Your task to perform on an android device: toggle wifi Image 0: 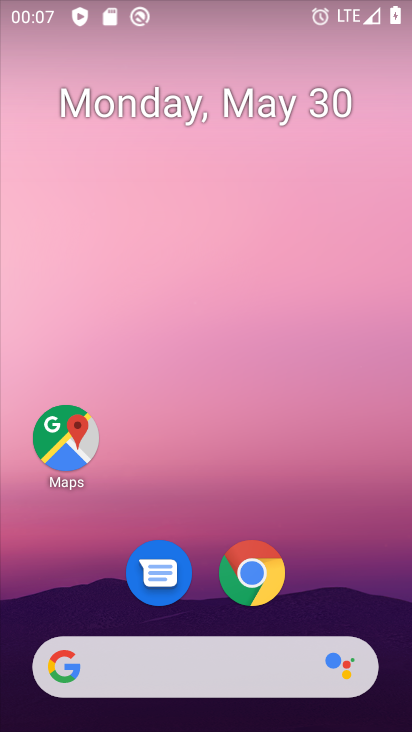
Step 0: drag from (342, 580) to (112, 7)
Your task to perform on an android device: toggle wifi Image 1: 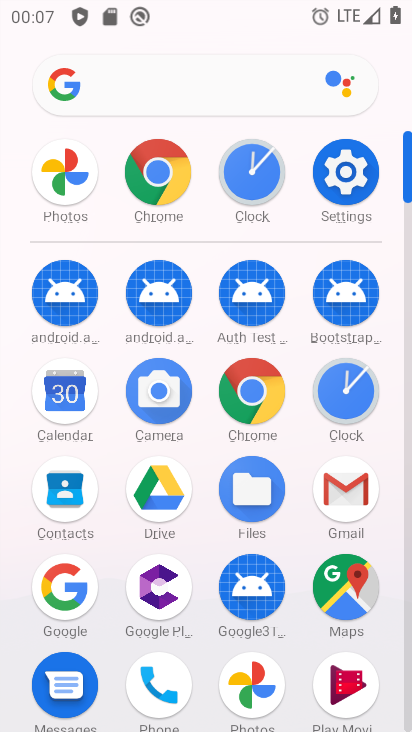
Step 1: click (350, 176)
Your task to perform on an android device: toggle wifi Image 2: 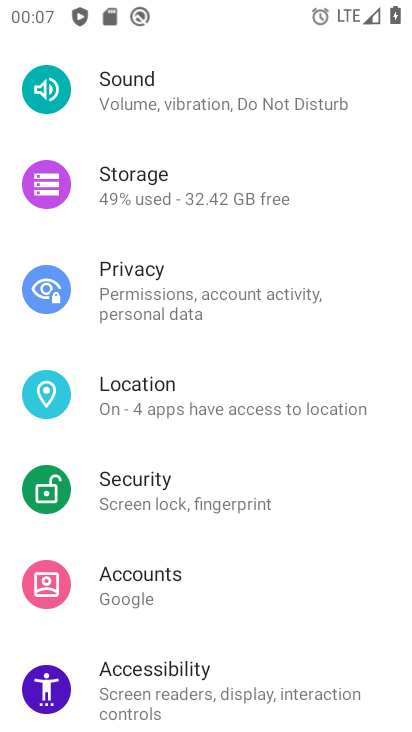
Step 2: drag from (219, 159) to (194, 668)
Your task to perform on an android device: toggle wifi Image 3: 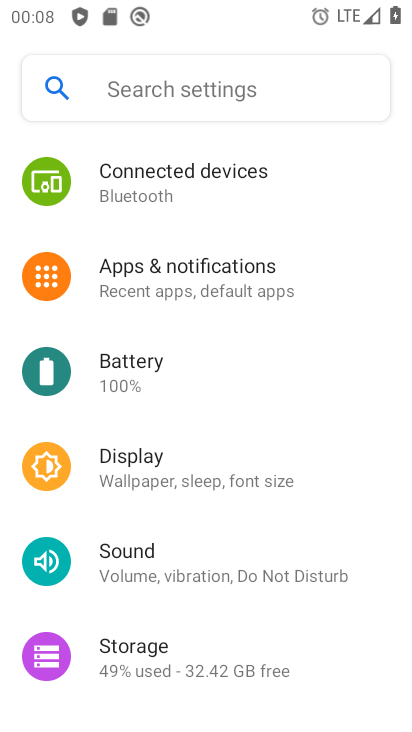
Step 3: drag from (217, 224) to (218, 628)
Your task to perform on an android device: toggle wifi Image 4: 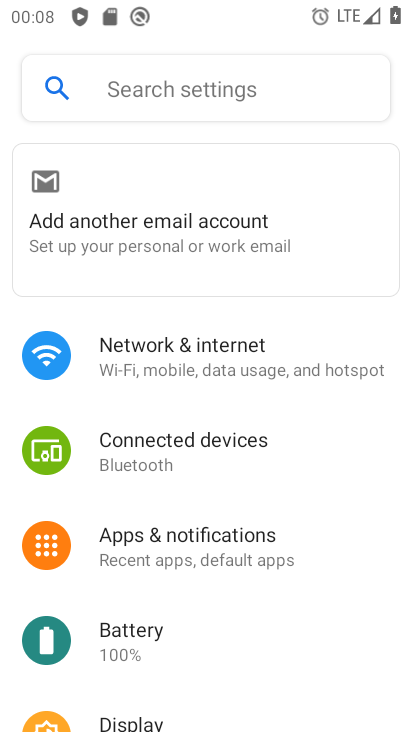
Step 4: click (211, 371)
Your task to perform on an android device: toggle wifi Image 5: 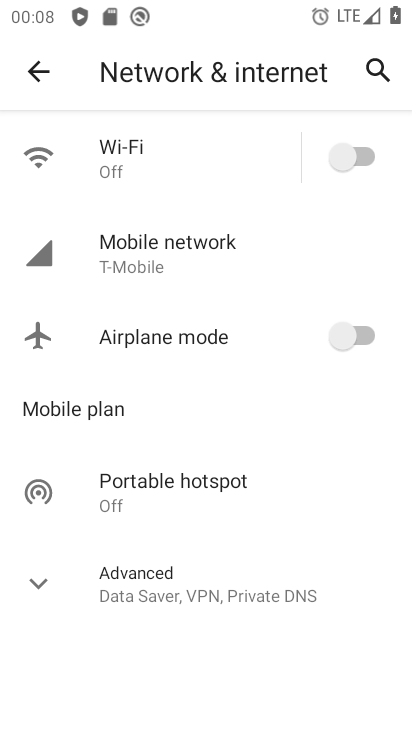
Step 5: click (346, 165)
Your task to perform on an android device: toggle wifi Image 6: 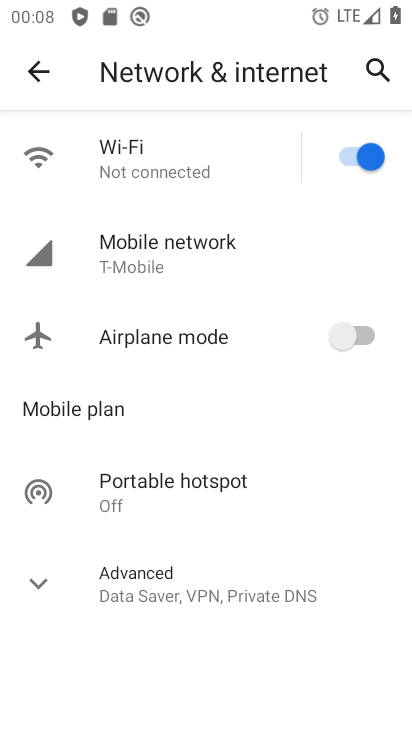
Step 6: task complete